Your task to perform on an android device: Show me popular videos on Youtube Image 0: 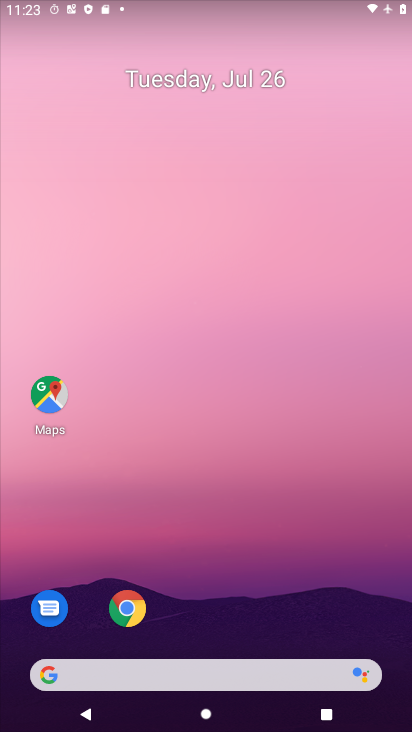
Step 0: drag from (265, 570) to (265, 76)
Your task to perform on an android device: Show me popular videos on Youtube Image 1: 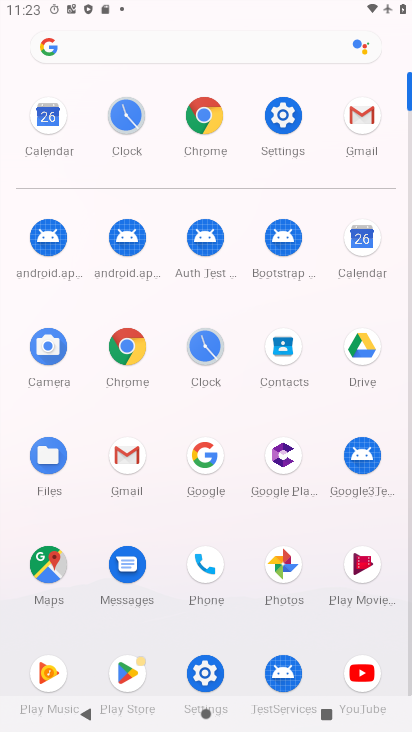
Step 1: click (360, 658)
Your task to perform on an android device: Show me popular videos on Youtube Image 2: 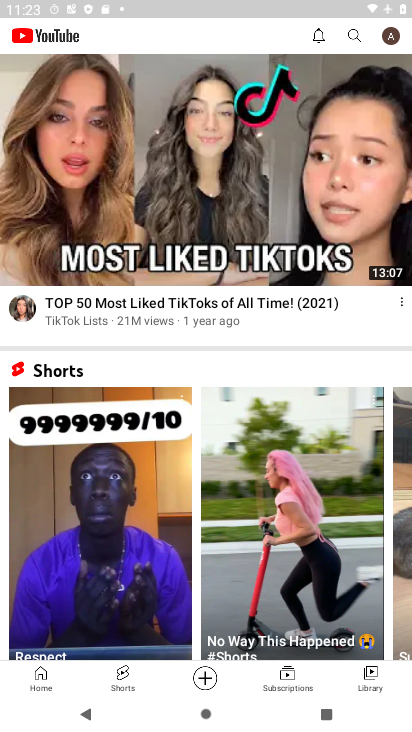
Step 2: click (347, 37)
Your task to perform on an android device: Show me popular videos on Youtube Image 3: 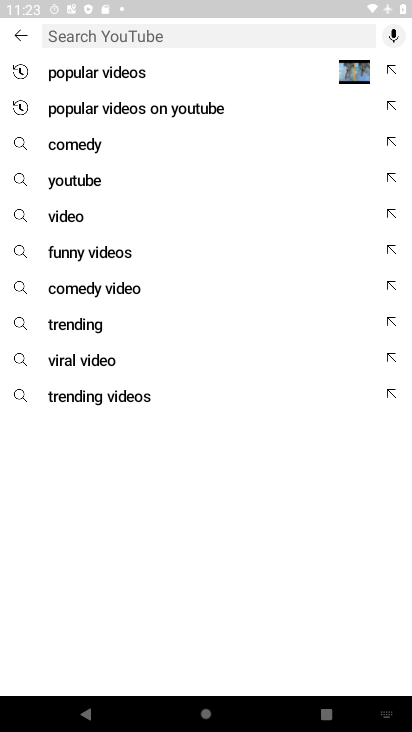
Step 3: click (168, 72)
Your task to perform on an android device: Show me popular videos on Youtube Image 4: 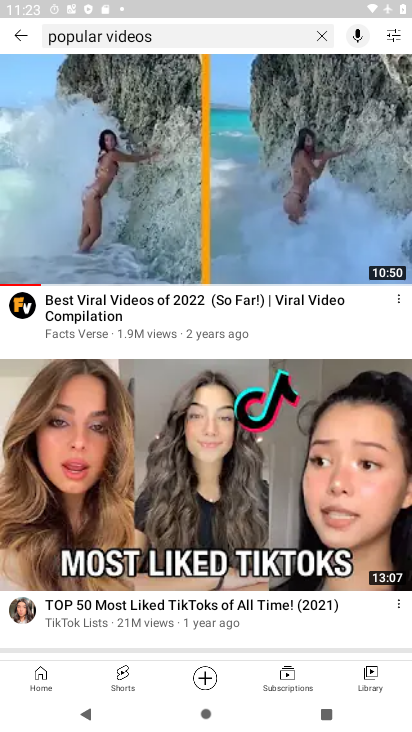
Step 4: task complete